Your task to perform on an android device: When is my next meeting? Image 0: 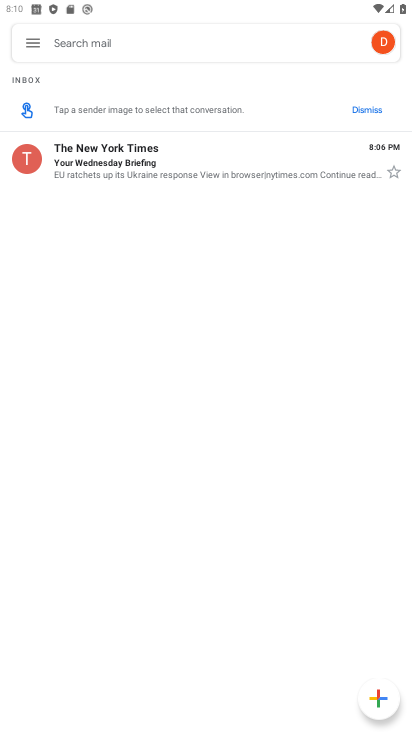
Step 0: press home button
Your task to perform on an android device: When is my next meeting? Image 1: 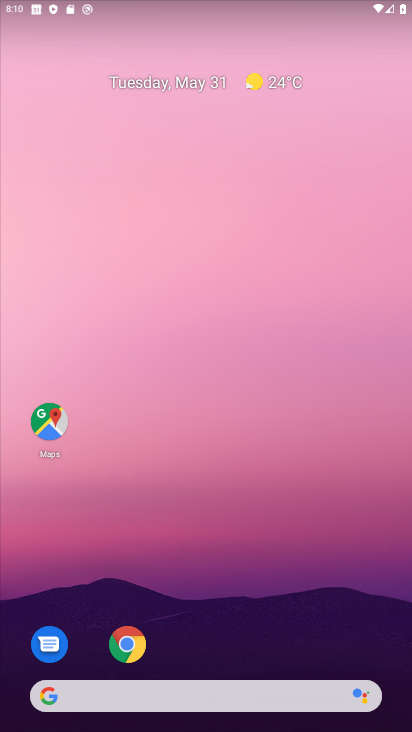
Step 1: drag from (253, 615) to (80, 103)
Your task to perform on an android device: When is my next meeting? Image 2: 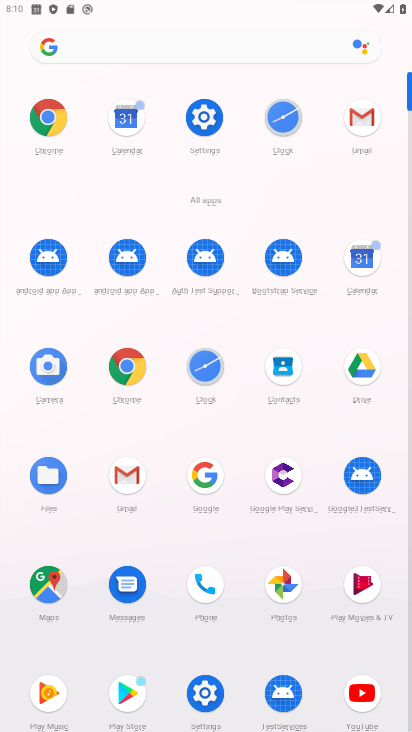
Step 2: click (357, 267)
Your task to perform on an android device: When is my next meeting? Image 3: 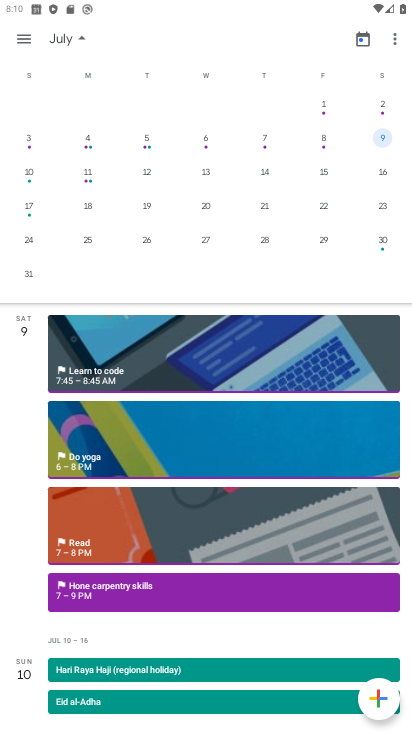
Step 3: task complete